Your task to perform on an android device: Open Google Maps and go to "Timeline" Image 0: 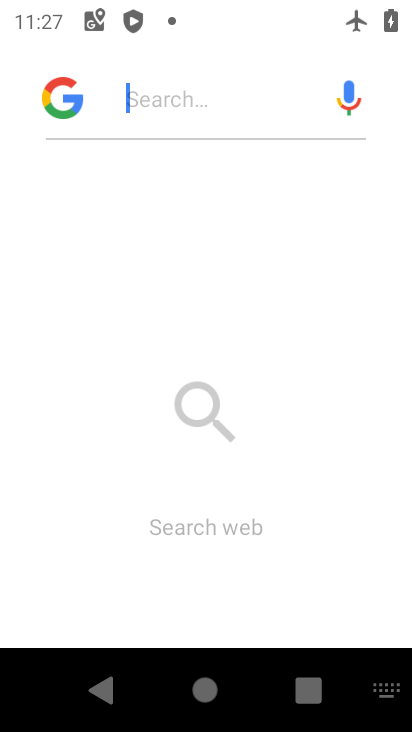
Step 0: press home button
Your task to perform on an android device: Open Google Maps and go to "Timeline" Image 1: 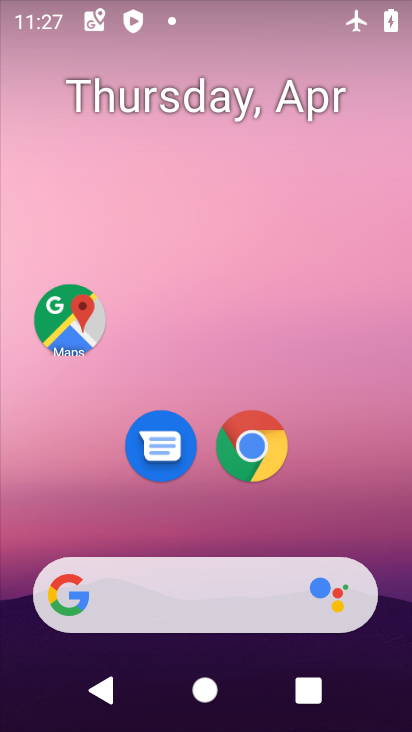
Step 1: drag from (395, 529) to (287, 3)
Your task to perform on an android device: Open Google Maps and go to "Timeline" Image 2: 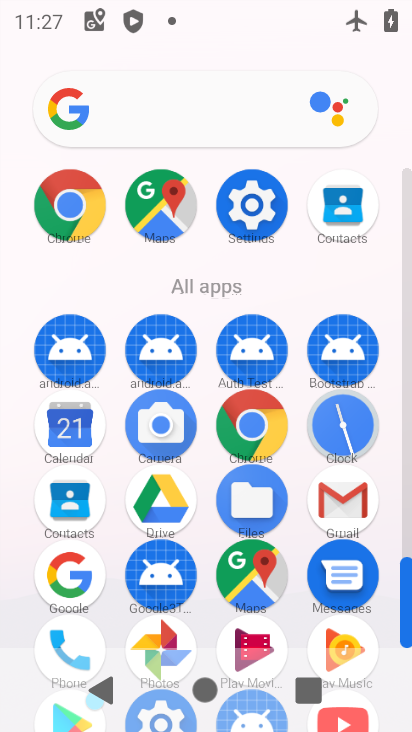
Step 2: click (170, 206)
Your task to perform on an android device: Open Google Maps and go to "Timeline" Image 3: 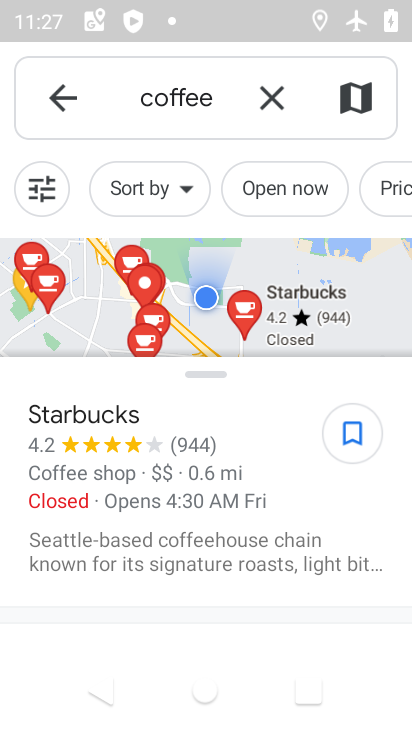
Step 3: click (71, 97)
Your task to perform on an android device: Open Google Maps and go to "Timeline" Image 4: 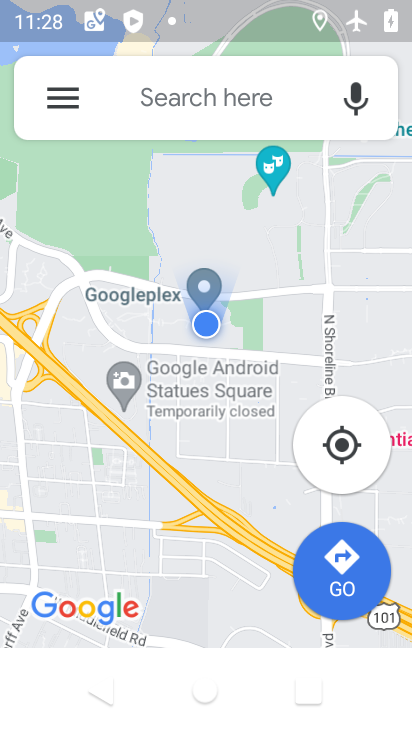
Step 4: click (71, 97)
Your task to perform on an android device: Open Google Maps and go to "Timeline" Image 5: 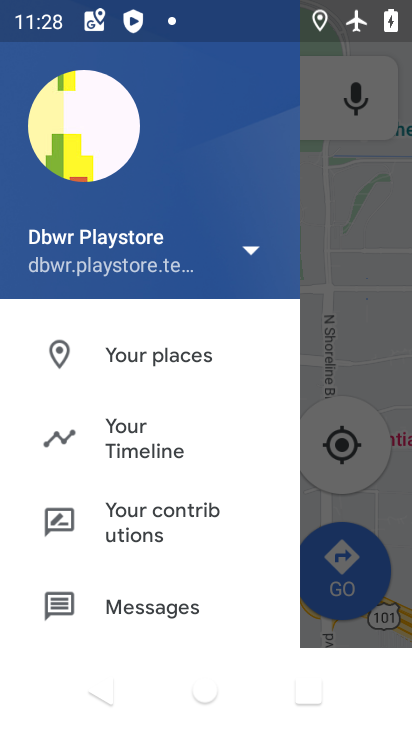
Step 5: click (145, 444)
Your task to perform on an android device: Open Google Maps and go to "Timeline" Image 6: 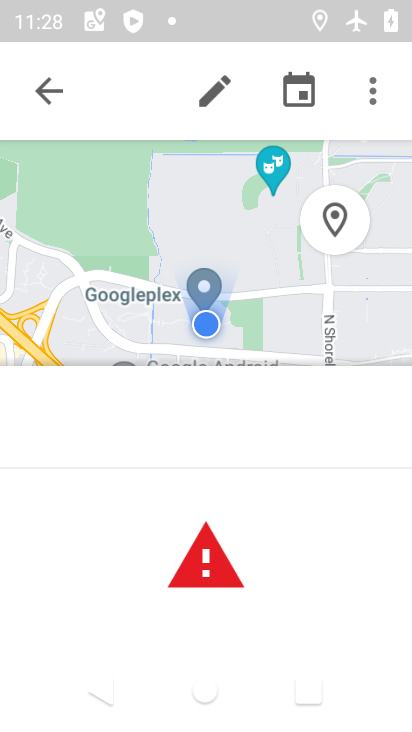
Step 6: task complete